Your task to perform on an android device: Open my contact list Image 0: 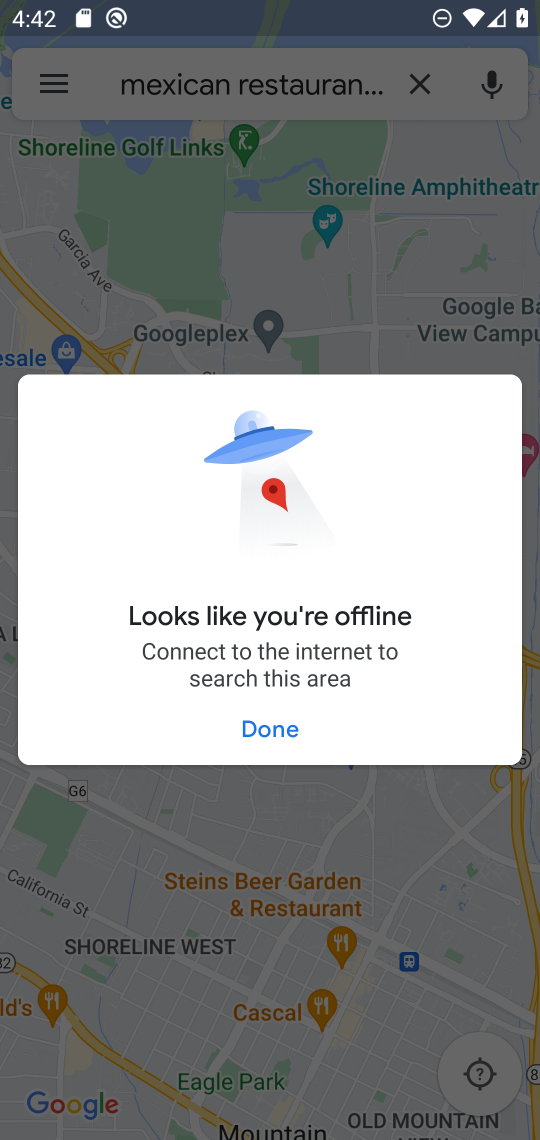
Step 0: press home button
Your task to perform on an android device: Open my contact list Image 1: 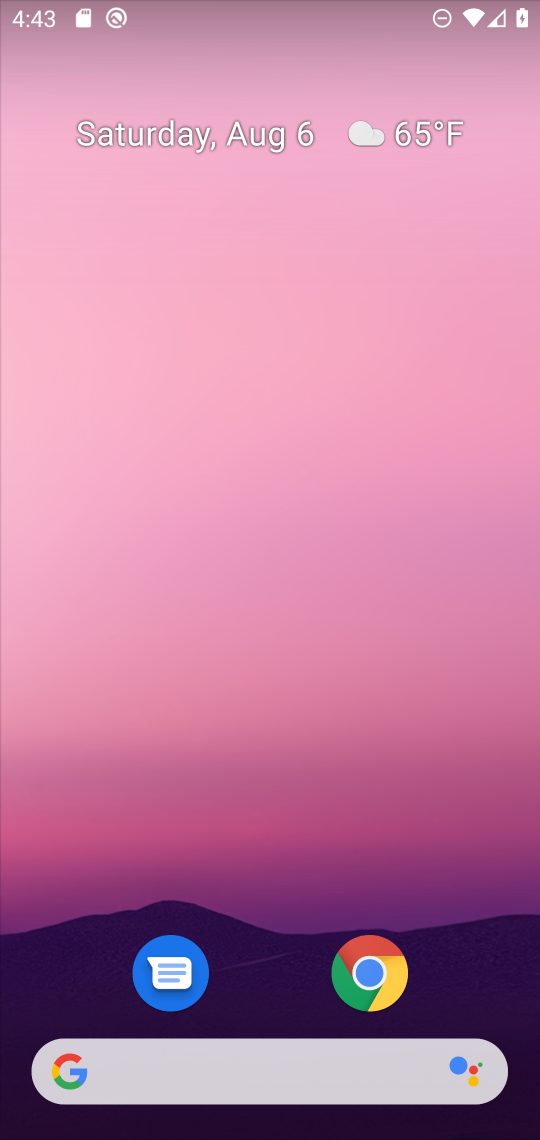
Step 1: drag from (256, 928) to (329, 125)
Your task to perform on an android device: Open my contact list Image 2: 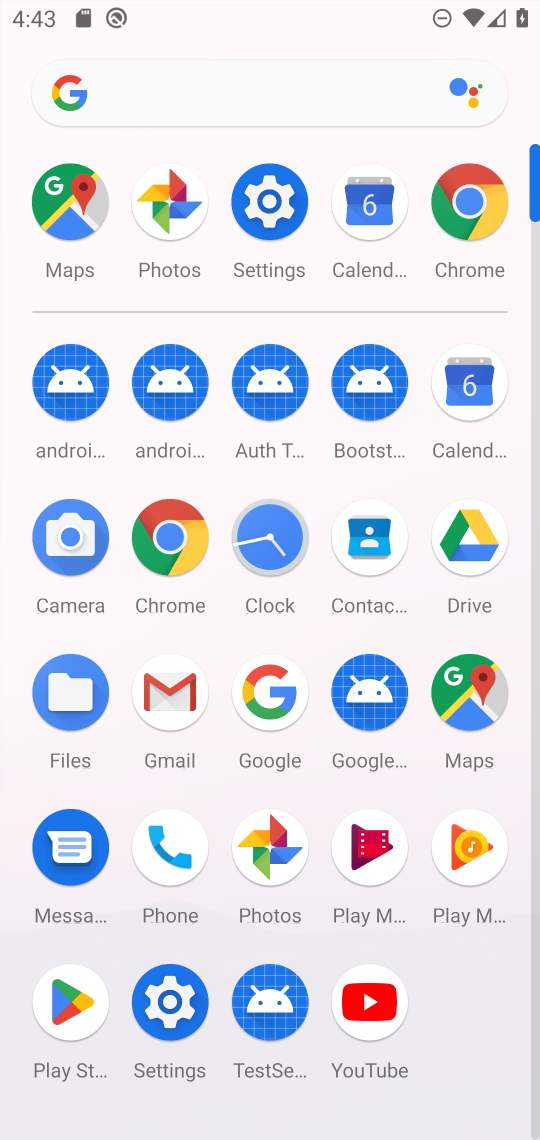
Step 2: click (362, 522)
Your task to perform on an android device: Open my contact list Image 3: 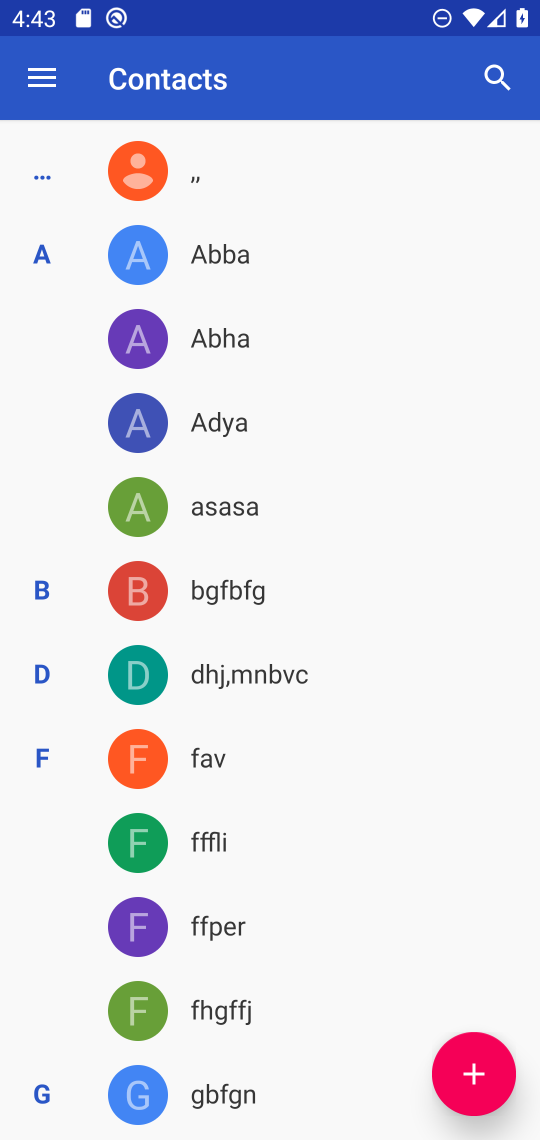
Step 3: task complete